Your task to perform on an android device: Open the calendar and show me this week's events? Image 0: 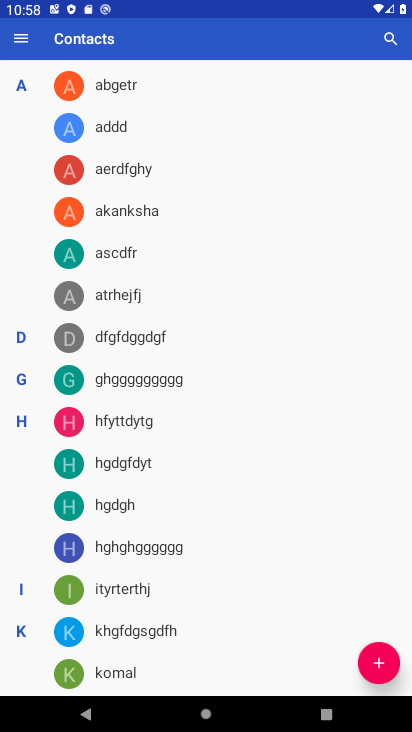
Step 0: press home button
Your task to perform on an android device: Open the calendar and show me this week's events? Image 1: 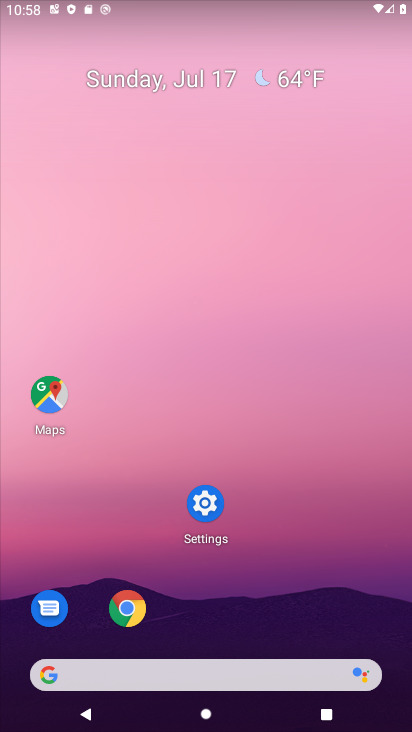
Step 1: drag from (398, 652) to (291, 100)
Your task to perform on an android device: Open the calendar and show me this week's events? Image 2: 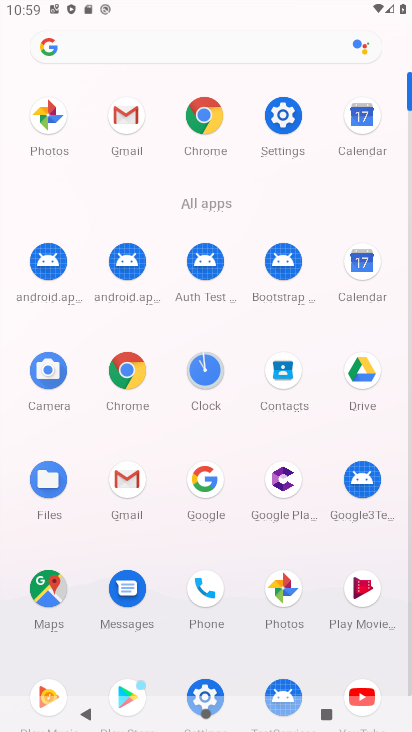
Step 2: click (357, 263)
Your task to perform on an android device: Open the calendar and show me this week's events? Image 3: 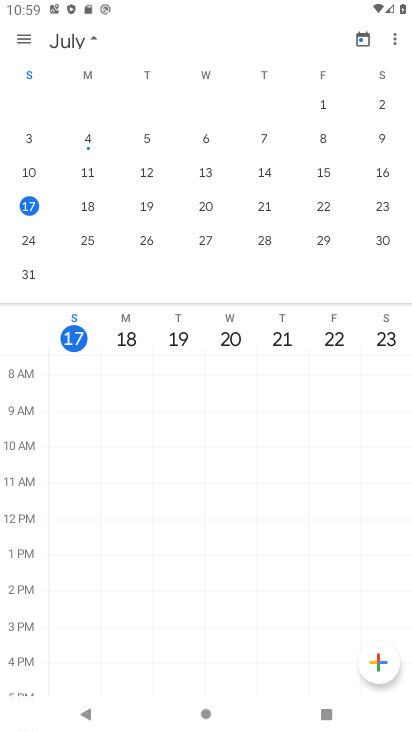
Step 3: task complete